Your task to perform on an android device: check battery use Image 0: 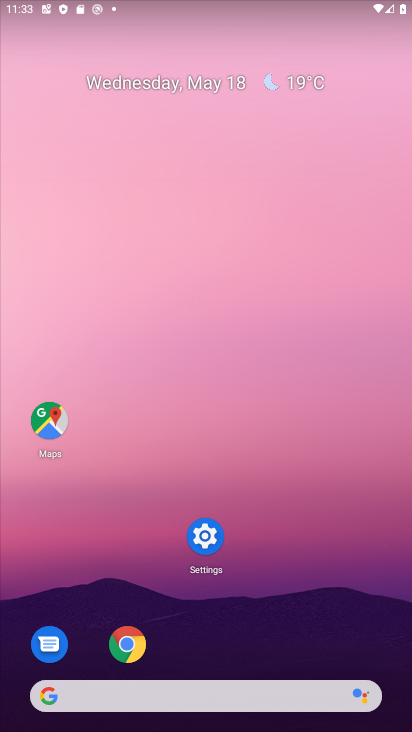
Step 0: drag from (289, 586) to (293, 207)
Your task to perform on an android device: check battery use Image 1: 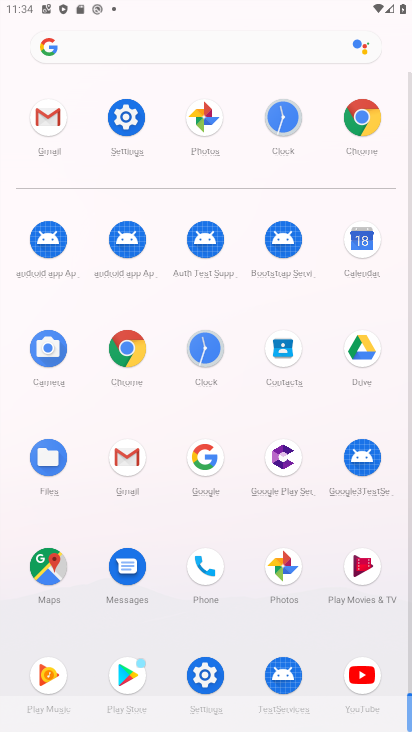
Step 1: click (116, 105)
Your task to perform on an android device: check battery use Image 2: 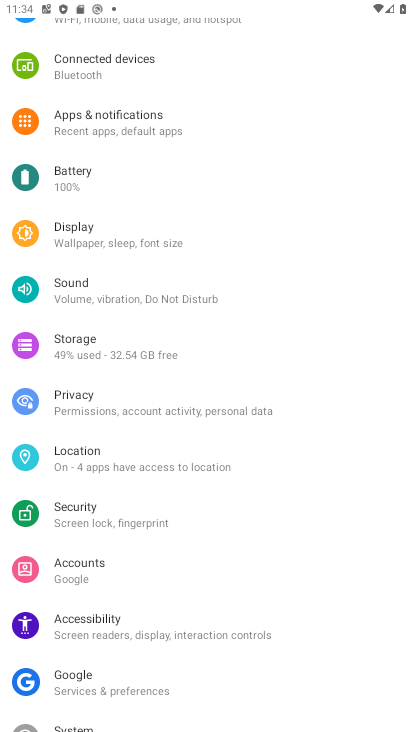
Step 2: click (136, 179)
Your task to perform on an android device: check battery use Image 3: 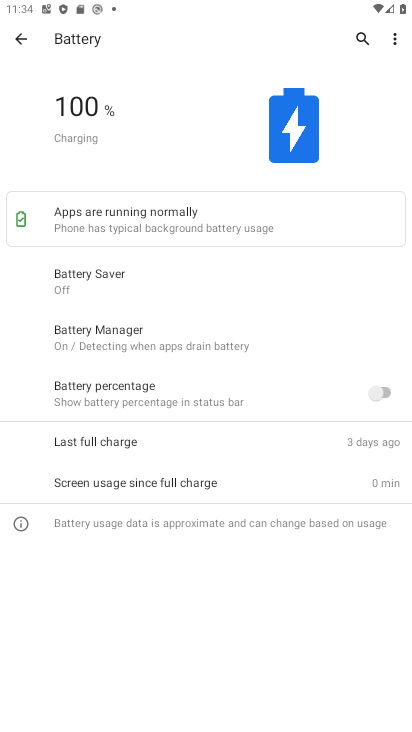
Step 3: task complete